Your task to perform on an android device: toggle location history Image 0: 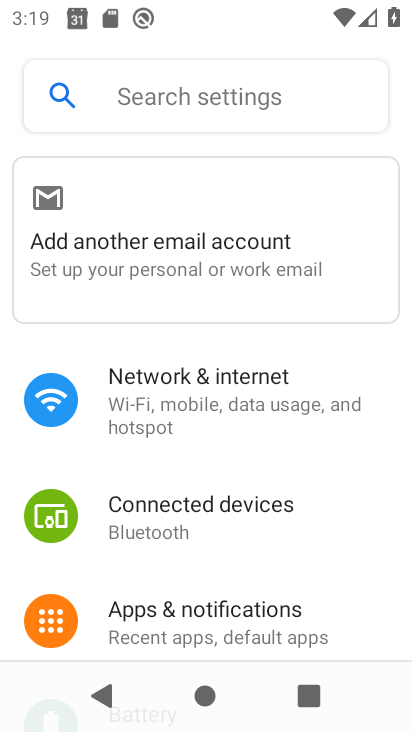
Step 0: drag from (286, 573) to (288, 238)
Your task to perform on an android device: toggle location history Image 1: 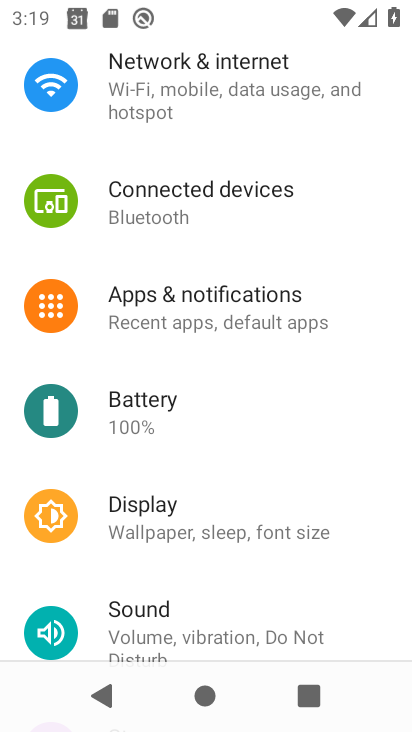
Step 1: drag from (296, 626) to (256, 208)
Your task to perform on an android device: toggle location history Image 2: 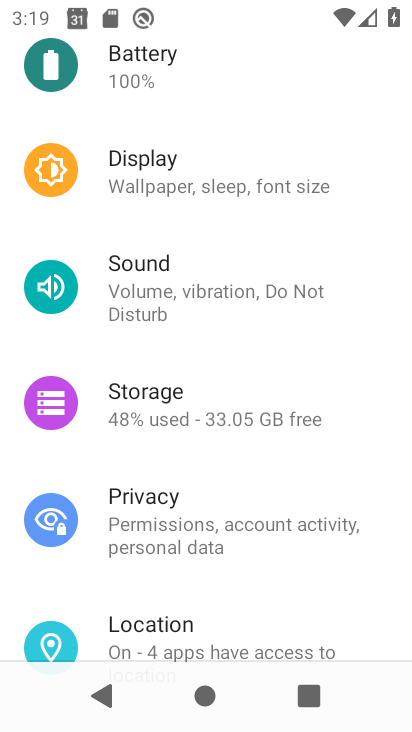
Step 2: drag from (322, 597) to (307, 205)
Your task to perform on an android device: toggle location history Image 3: 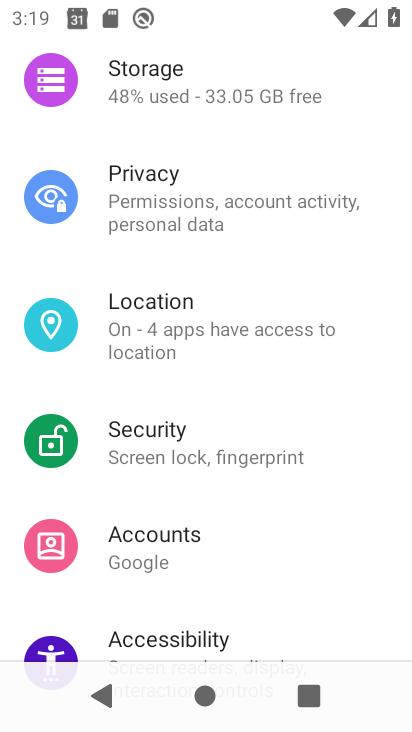
Step 3: drag from (297, 546) to (282, 327)
Your task to perform on an android device: toggle location history Image 4: 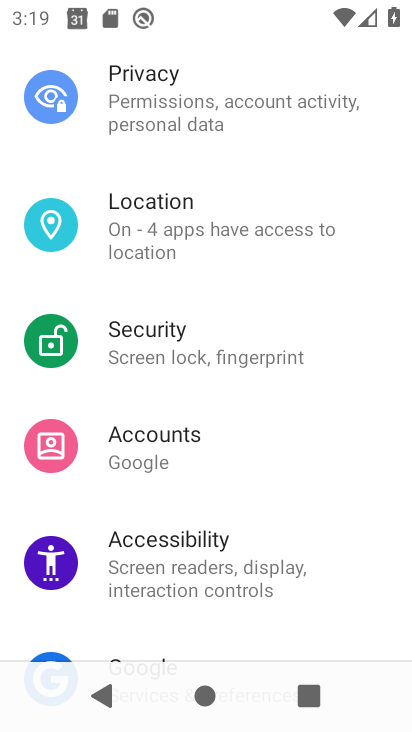
Step 4: drag from (240, 601) to (206, 313)
Your task to perform on an android device: toggle location history Image 5: 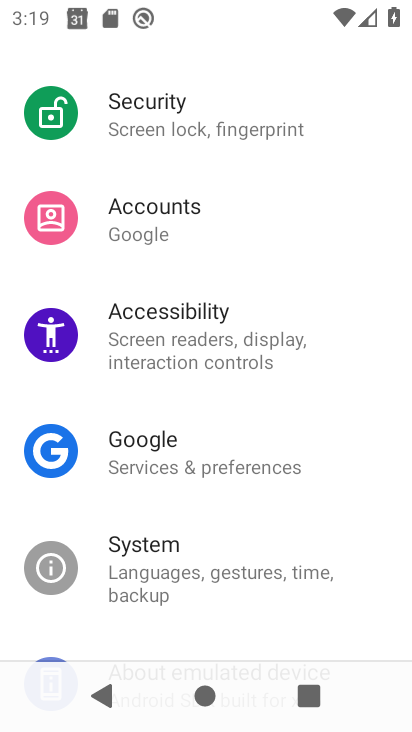
Step 5: drag from (188, 278) to (184, 562)
Your task to perform on an android device: toggle location history Image 6: 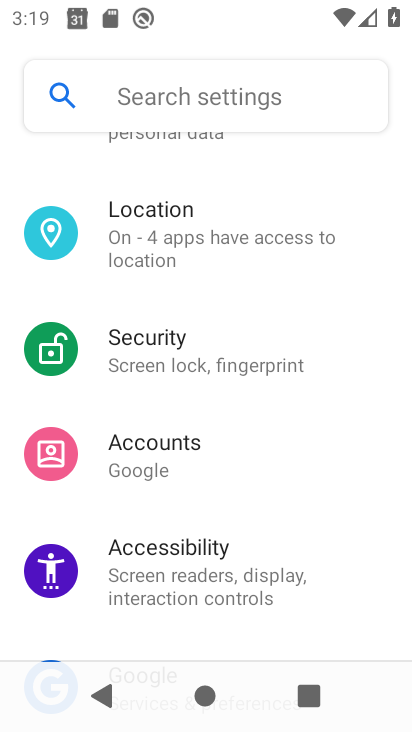
Step 6: click (195, 244)
Your task to perform on an android device: toggle location history Image 7: 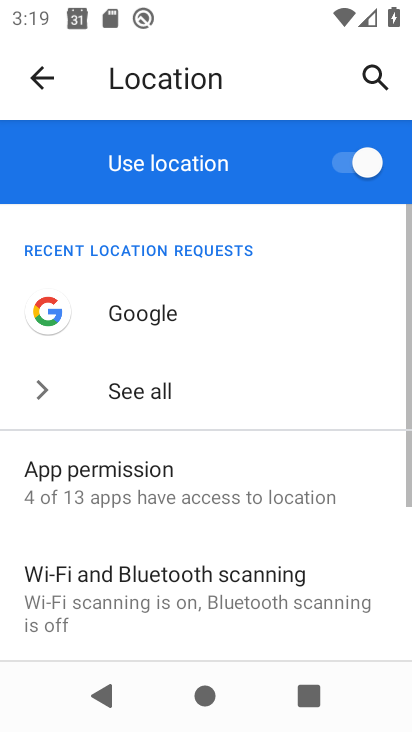
Step 7: drag from (199, 530) to (186, 347)
Your task to perform on an android device: toggle location history Image 8: 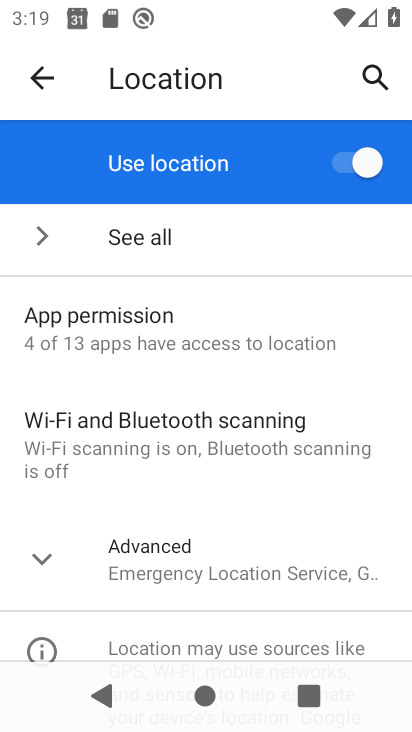
Step 8: click (148, 564)
Your task to perform on an android device: toggle location history Image 9: 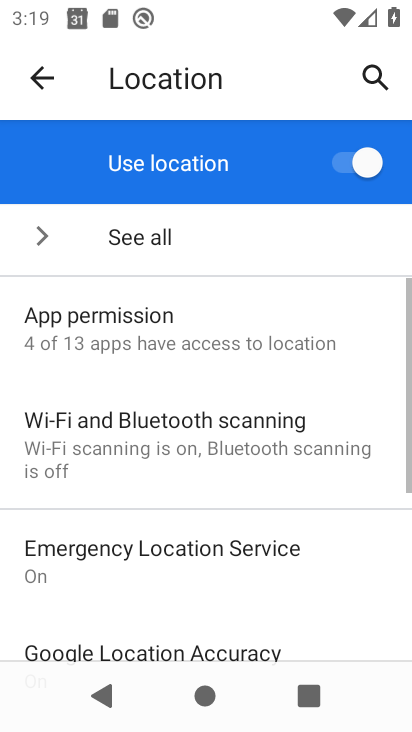
Step 9: drag from (246, 526) to (215, 241)
Your task to perform on an android device: toggle location history Image 10: 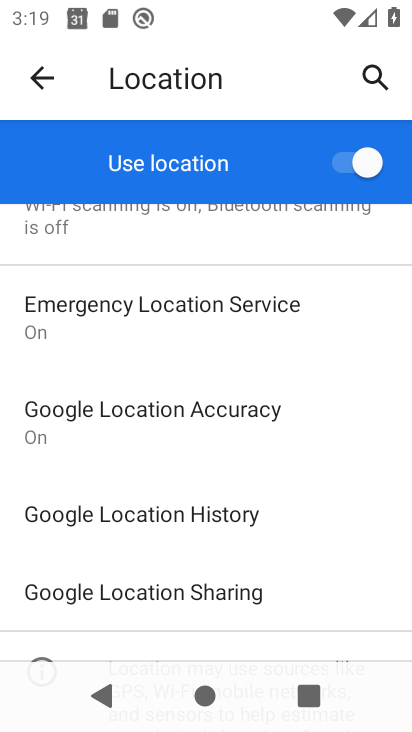
Step 10: click (168, 511)
Your task to perform on an android device: toggle location history Image 11: 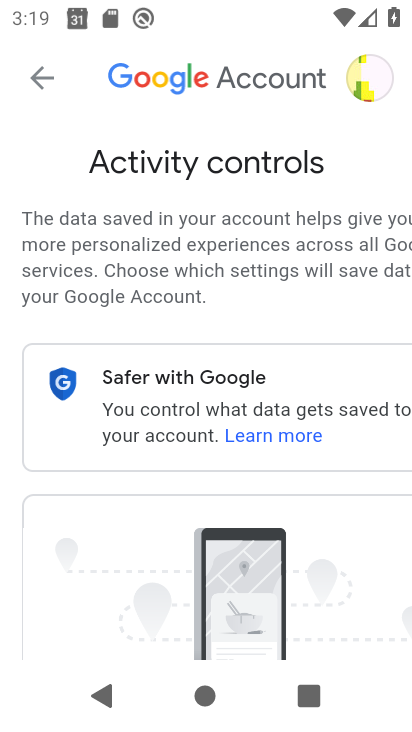
Step 11: drag from (304, 539) to (264, 57)
Your task to perform on an android device: toggle location history Image 12: 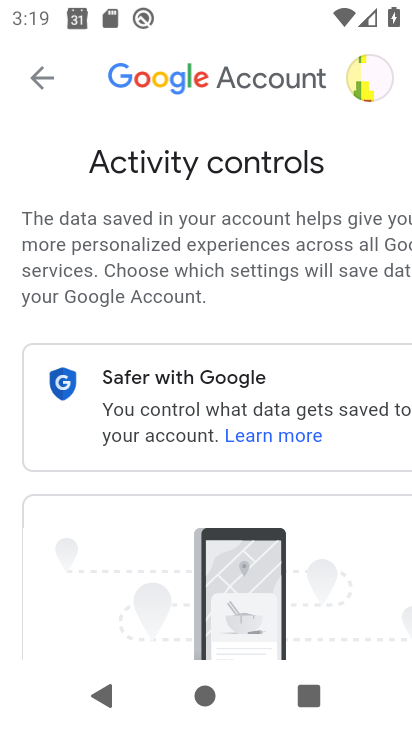
Step 12: drag from (306, 626) to (273, 150)
Your task to perform on an android device: toggle location history Image 13: 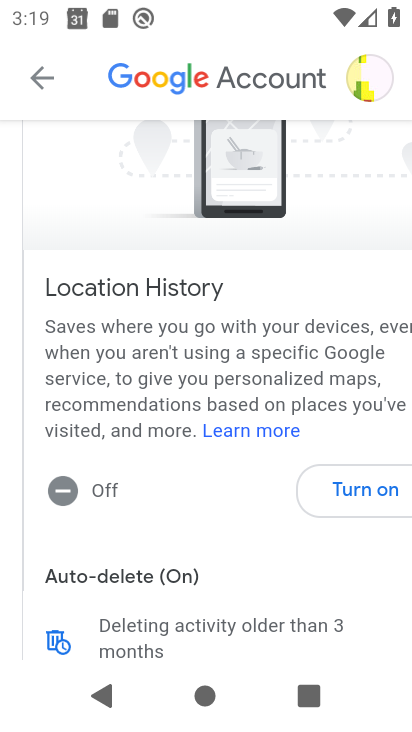
Step 13: click (342, 499)
Your task to perform on an android device: toggle location history Image 14: 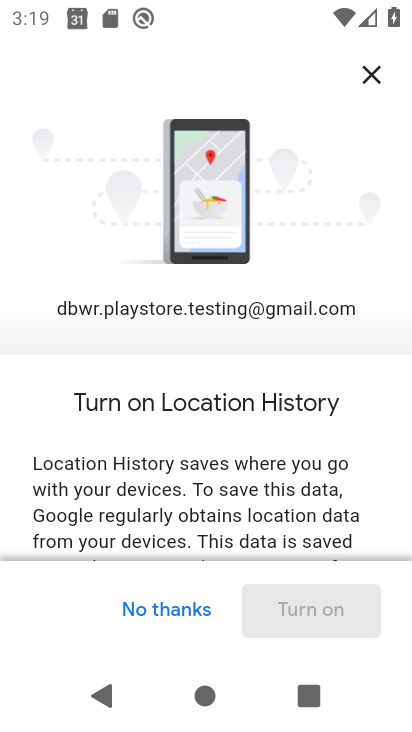
Step 14: drag from (305, 521) to (271, 33)
Your task to perform on an android device: toggle location history Image 15: 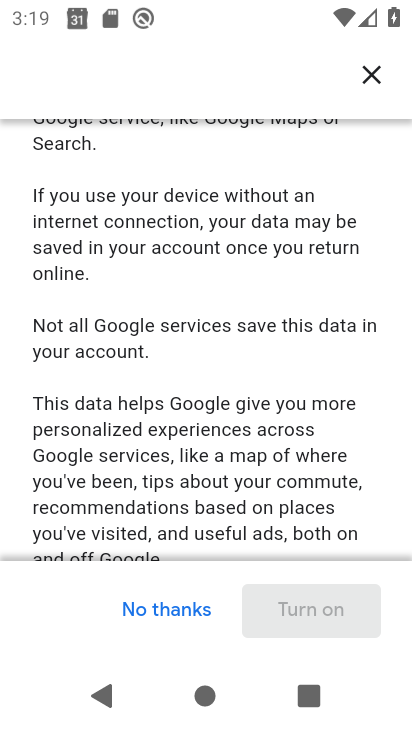
Step 15: drag from (340, 546) to (284, 141)
Your task to perform on an android device: toggle location history Image 16: 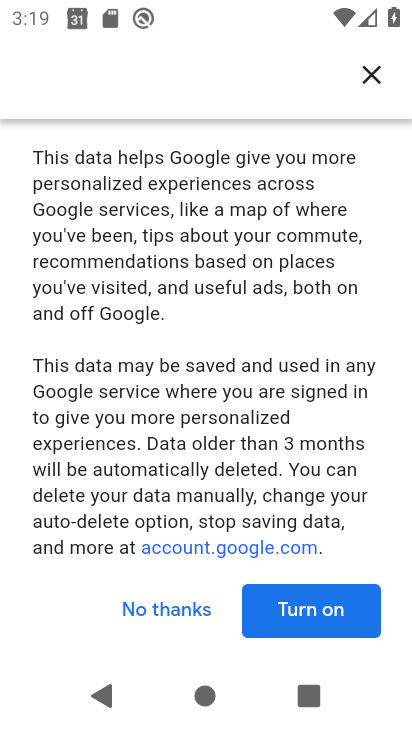
Step 16: click (326, 607)
Your task to perform on an android device: toggle location history Image 17: 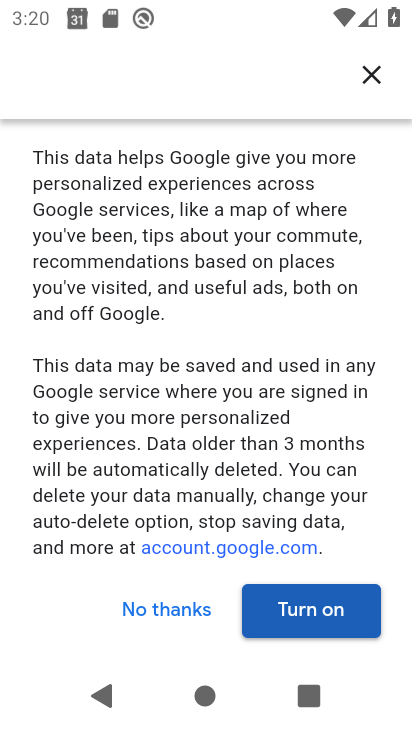
Step 17: click (327, 611)
Your task to perform on an android device: toggle location history Image 18: 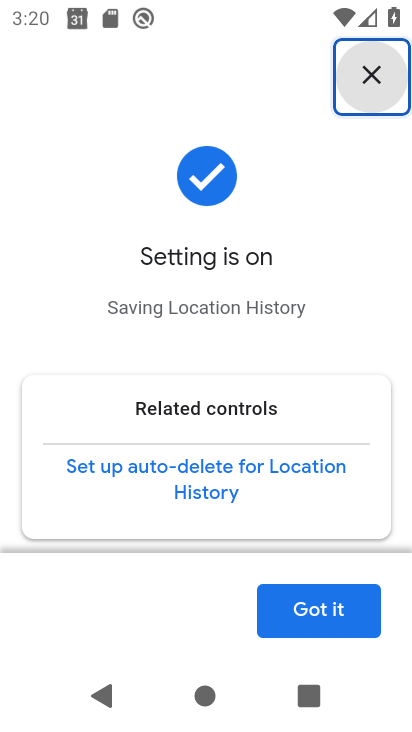
Step 18: click (327, 612)
Your task to perform on an android device: toggle location history Image 19: 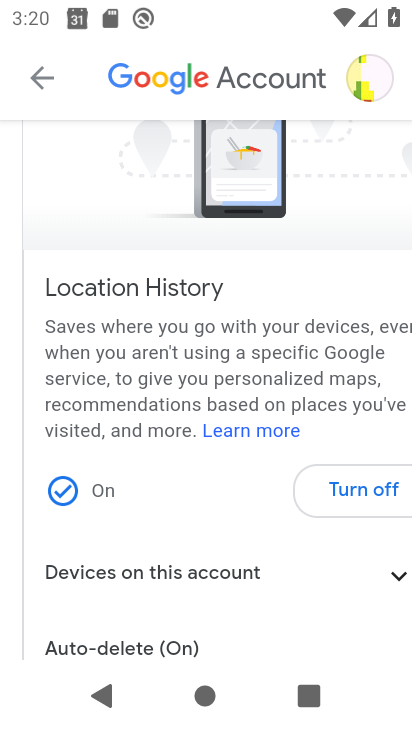
Step 19: task complete